Your task to perform on an android device: open app "Instagram" Image 0: 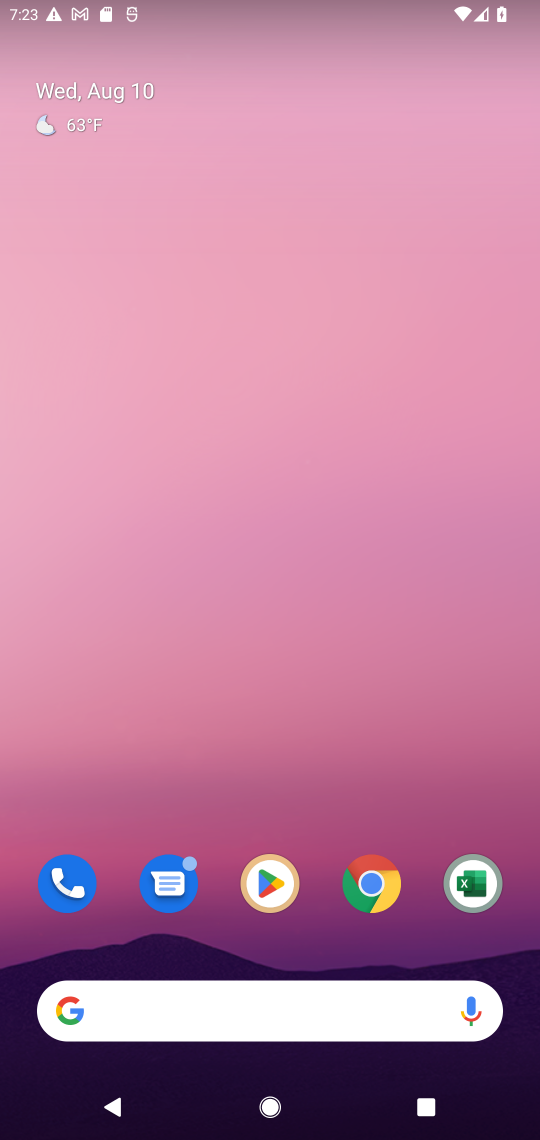
Step 0: click (275, 856)
Your task to perform on an android device: open app "Instagram" Image 1: 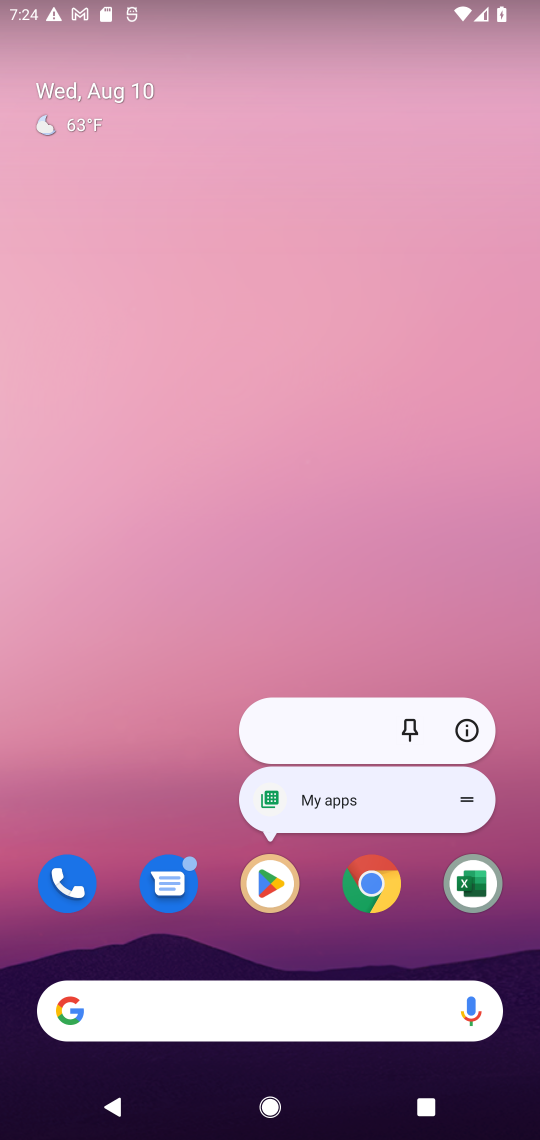
Step 1: click (246, 891)
Your task to perform on an android device: open app "Instagram" Image 2: 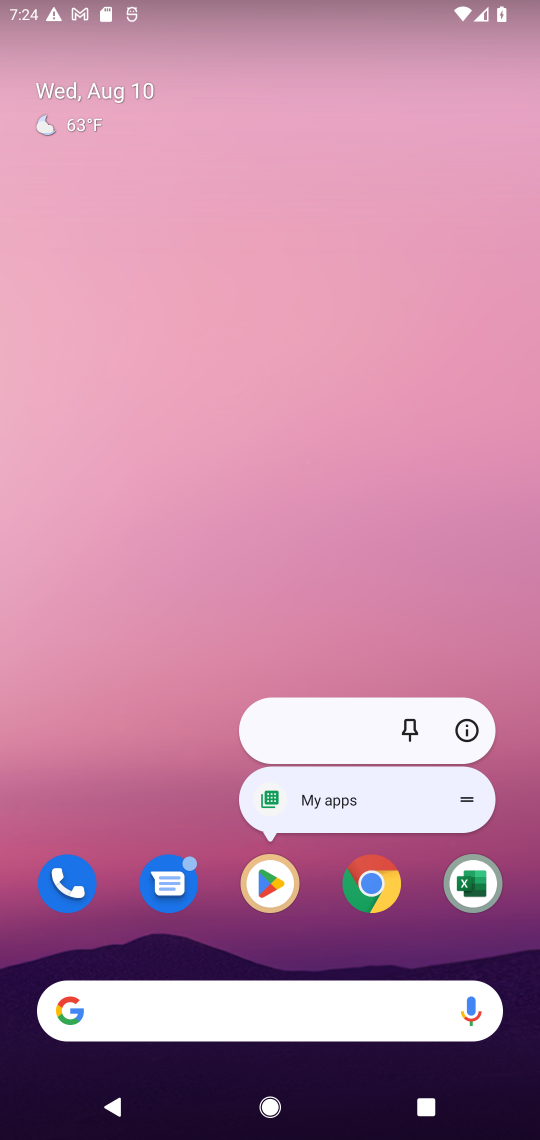
Step 2: click (302, 883)
Your task to perform on an android device: open app "Instagram" Image 3: 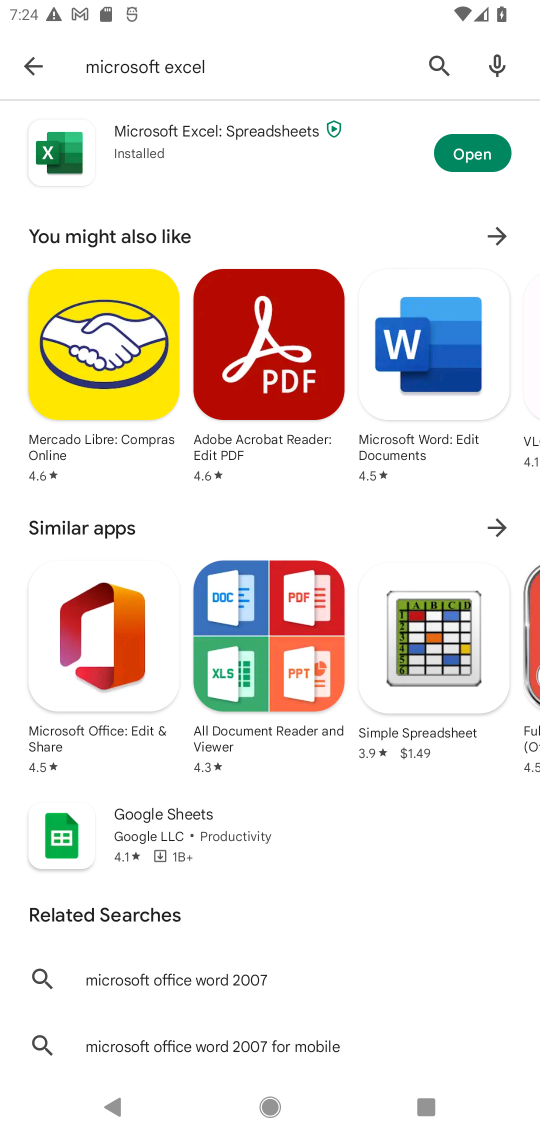
Step 3: click (433, 41)
Your task to perform on an android device: open app "Instagram" Image 4: 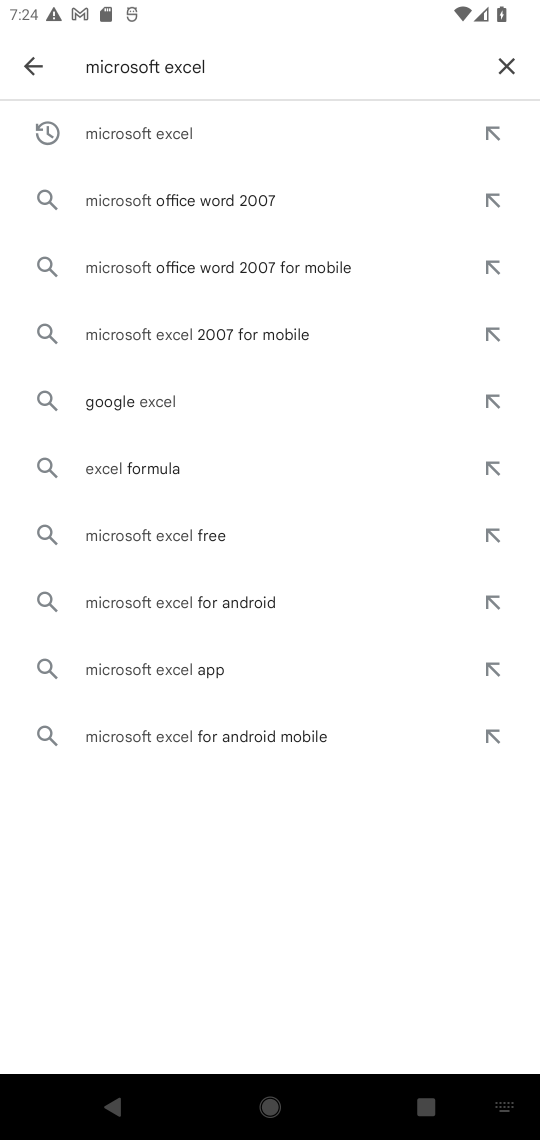
Step 4: click (502, 57)
Your task to perform on an android device: open app "Instagram" Image 5: 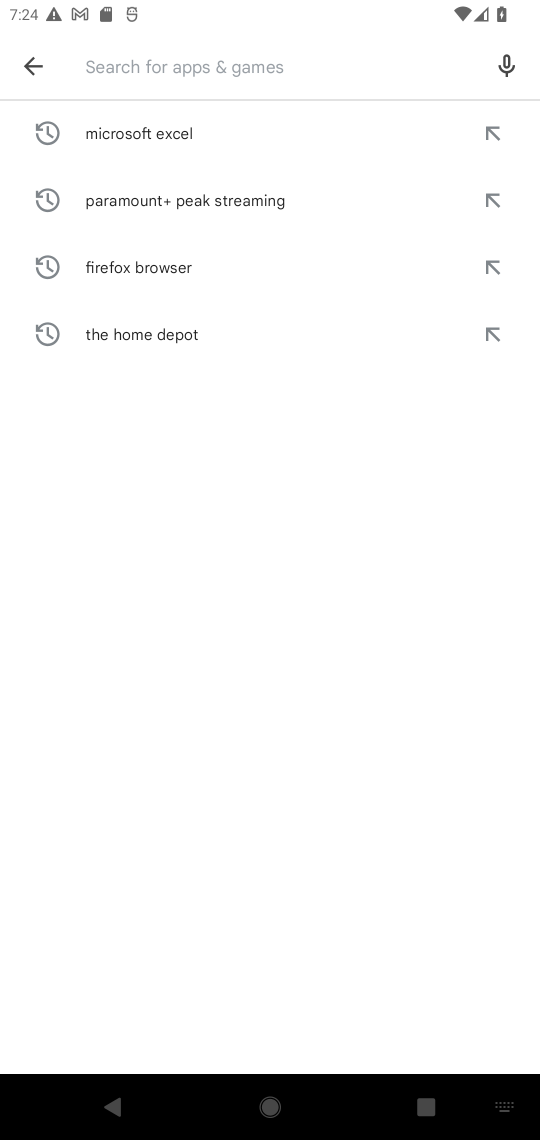
Step 5: type "Instagram"
Your task to perform on an android device: open app "Instagram" Image 6: 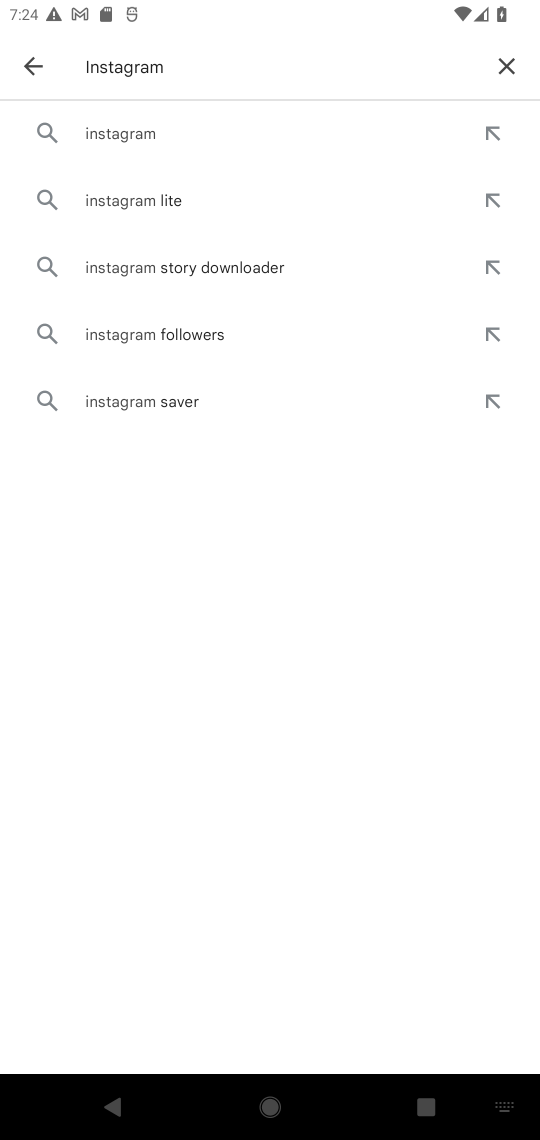
Step 6: click (129, 135)
Your task to perform on an android device: open app "Instagram" Image 7: 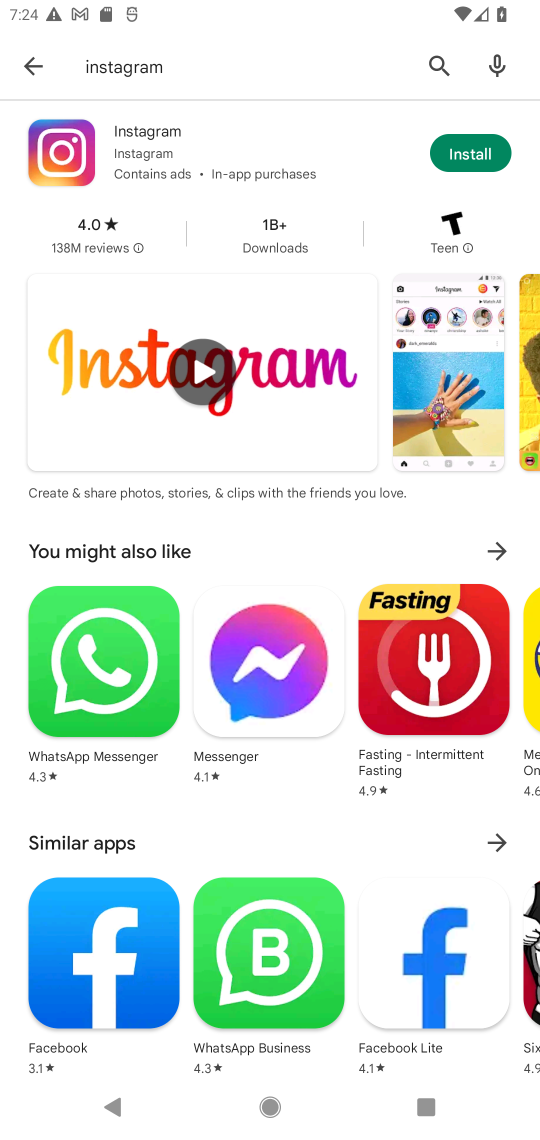
Step 7: task complete